Your task to perform on an android device: choose inbox layout in the gmail app Image 0: 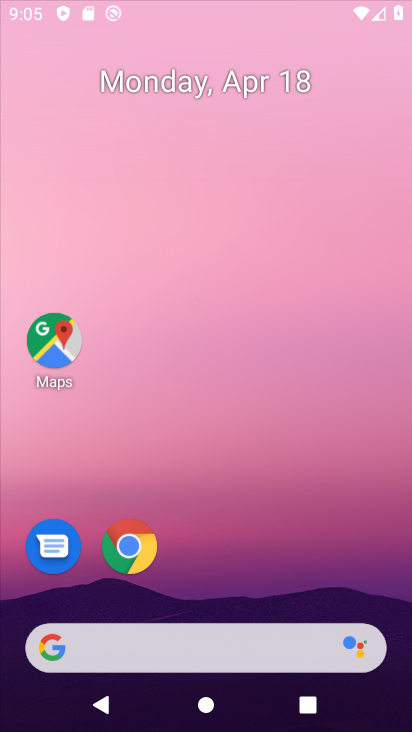
Step 0: drag from (296, 131) to (227, 23)
Your task to perform on an android device: choose inbox layout in the gmail app Image 1: 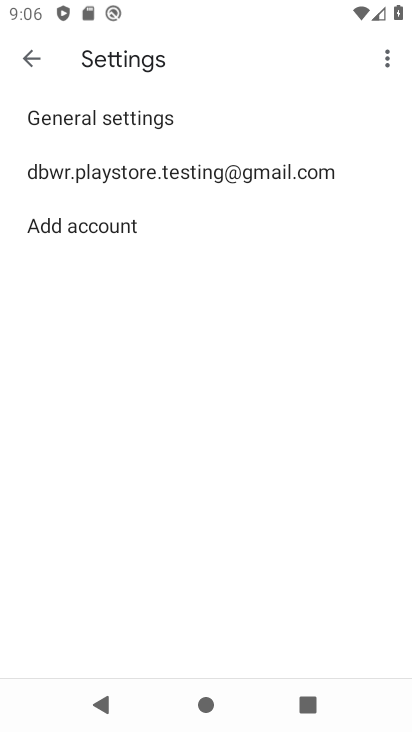
Step 1: click (226, 158)
Your task to perform on an android device: choose inbox layout in the gmail app Image 2: 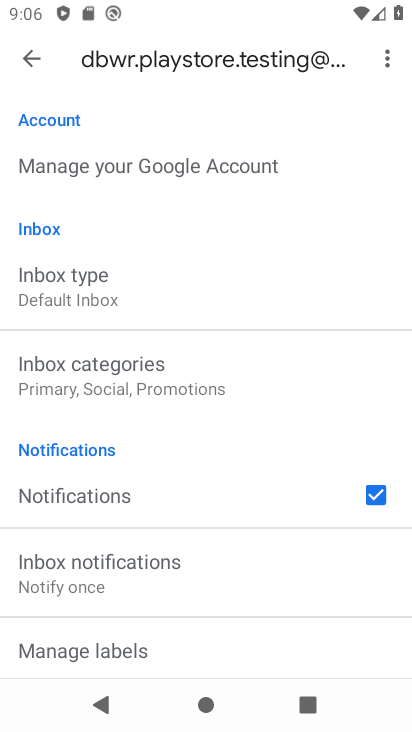
Step 2: click (66, 294)
Your task to perform on an android device: choose inbox layout in the gmail app Image 3: 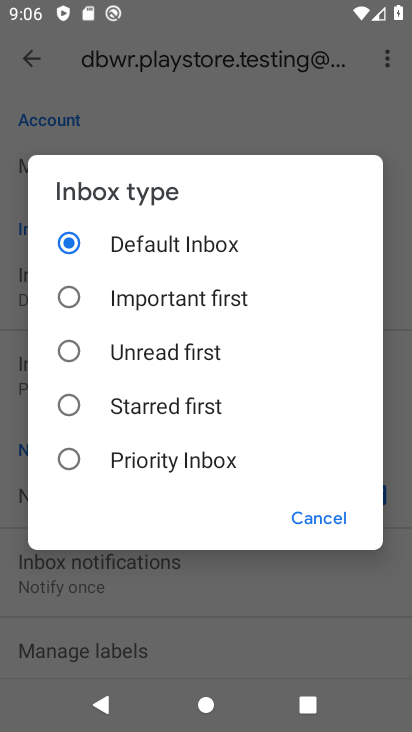
Step 3: click (127, 301)
Your task to perform on an android device: choose inbox layout in the gmail app Image 4: 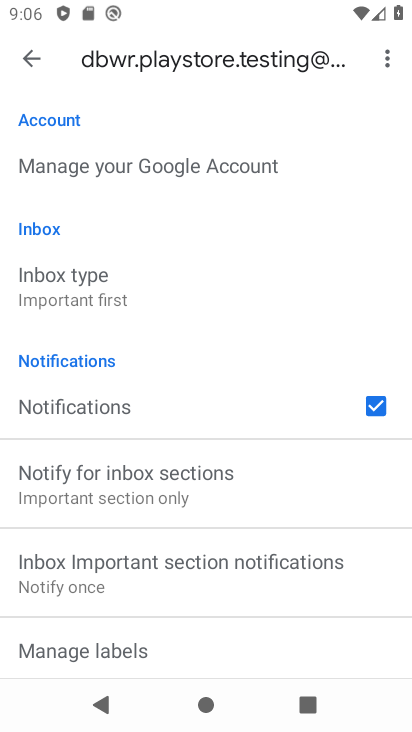
Step 4: task complete